Your task to perform on an android device: Go to Maps Image 0: 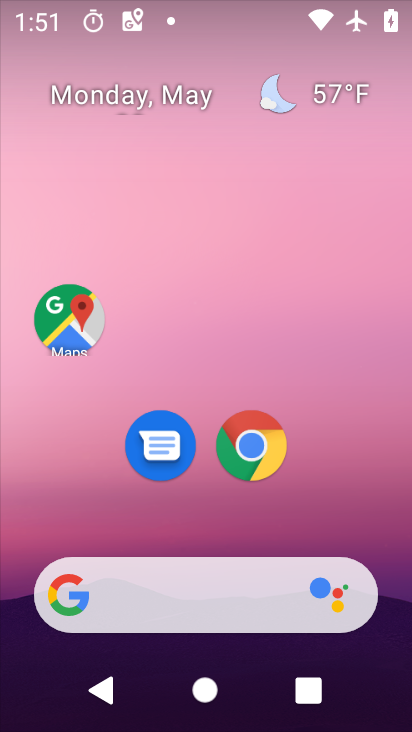
Step 0: click (87, 321)
Your task to perform on an android device: Go to Maps Image 1: 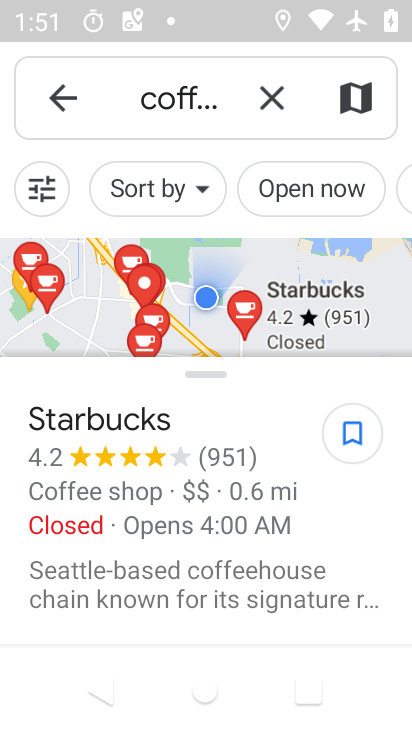
Step 1: task complete